Your task to perform on an android device: turn off improve location accuracy Image 0: 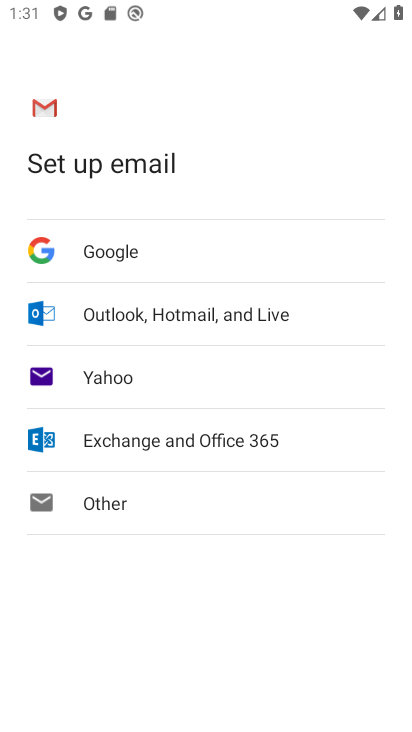
Step 0: press home button
Your task to perform on an android device: turn off improve location accuracy Image 1: 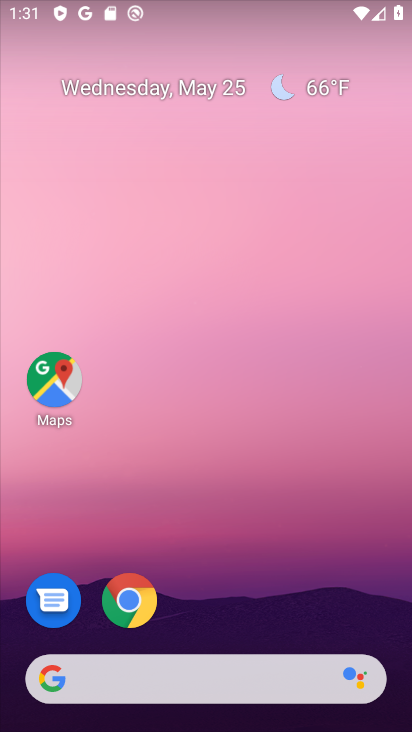
Step 1: drag from (196, 638) to (260, 128)
Your task to perform on an android device: turn off improve location accuracy Image 2: 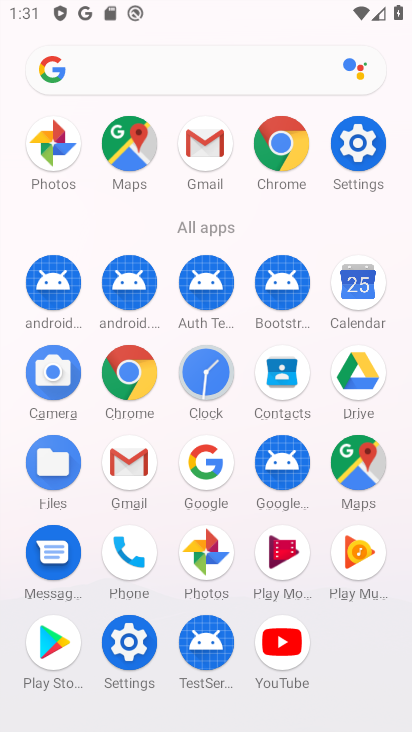
Step 2: drag from (200, 669) to (233, 521)
Your task to perform on an android device: turn off improve location accuracy Image 3: 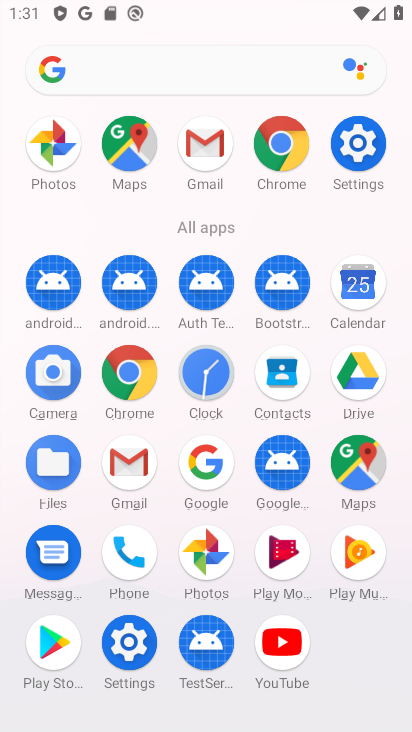
Step 3: click (112, 643)
Your task to perform on an android device: turn off improve location accuracy Image 4: 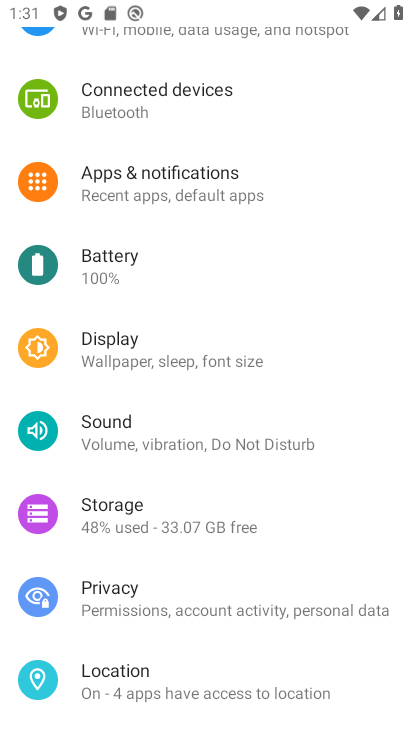
Step 4: drag from (267, 263) to (262, 555)
Your task to perform on an android device: turn off improve location accuracy Image 5: 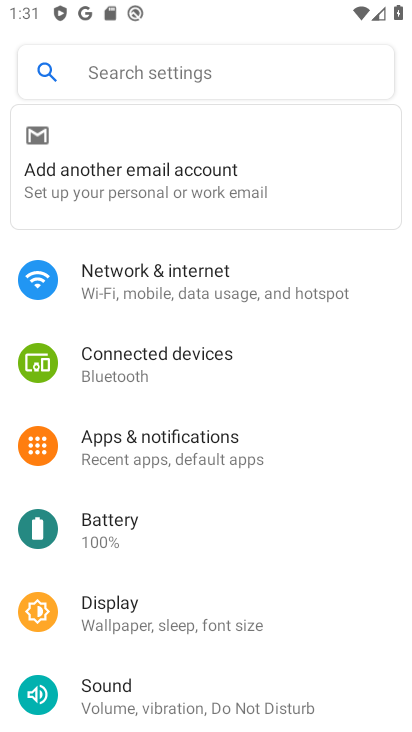
Step 5: drag from (144, 641) to (263, 316)
Your task to perform on an android device: turn off improve location accuracy Image 6: 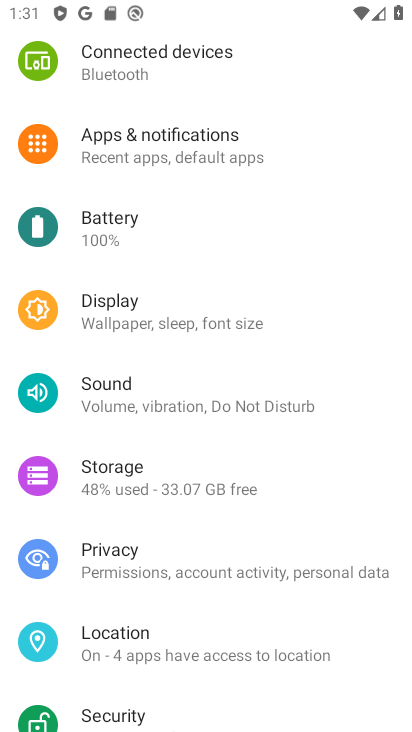
Step 6: click (165, 632)
Your task to perform on an android device: turn off improve location accuracy Image 7: 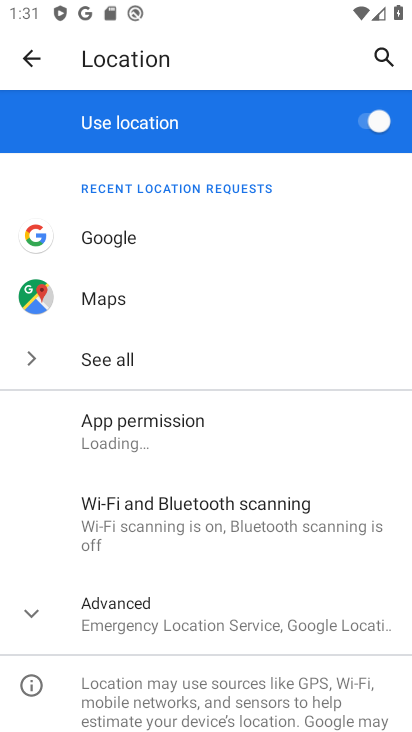
Step 7: click (165, 634)
Your task to perform on an android device: turn off improve location accuracy Image 8: 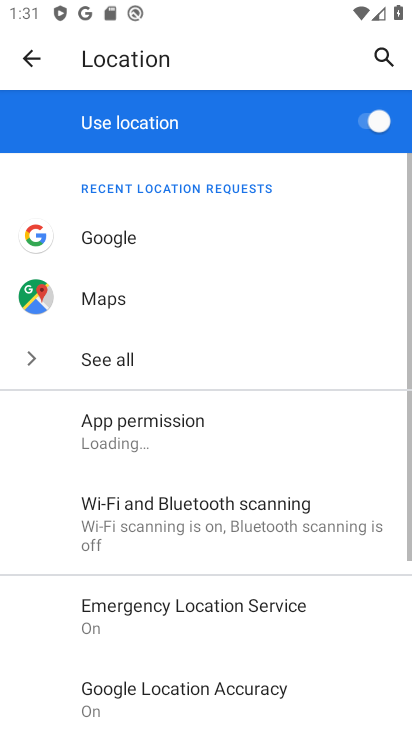
Step 8: drag from (203, 502) to (263, 303)
Your task to perform on an android device: turn off improve location accuracy Image 9: 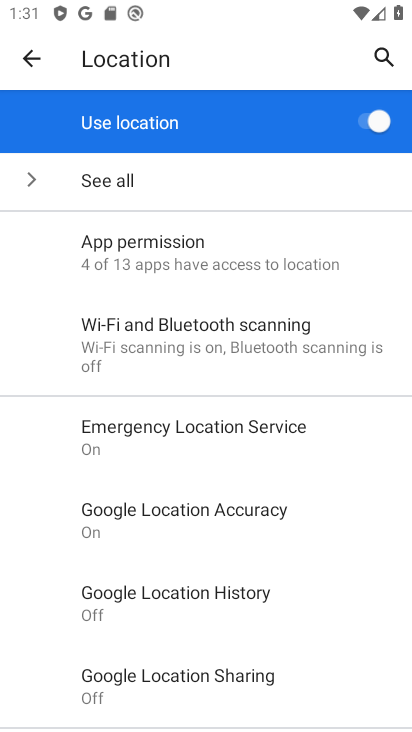
Step 9: click (221, 525)
Your task to perform on an android device: turn off improve location accuracy Image 10: 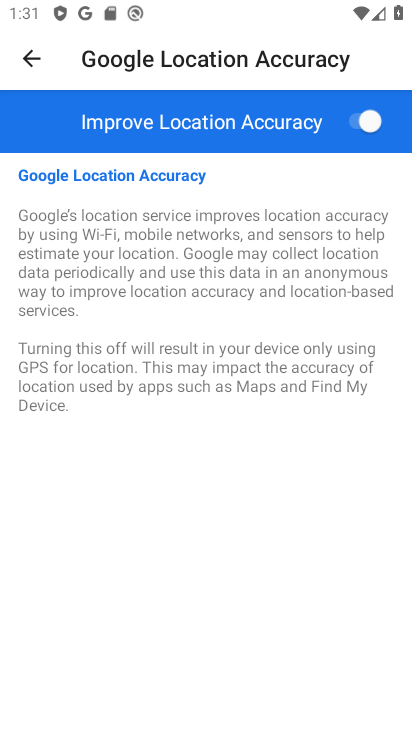
Step 10: click (348, 129)
Your task to perform on an android device: turn off improve location accuracy Image 11: 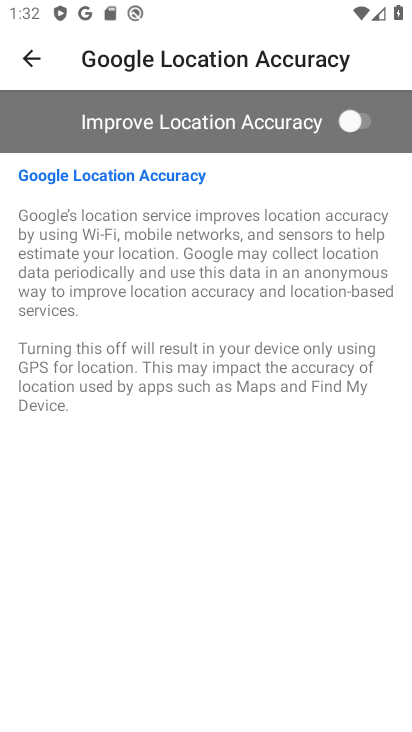
Step 11: task complete